Your task to perform on an android device: turn on location history Image 0: 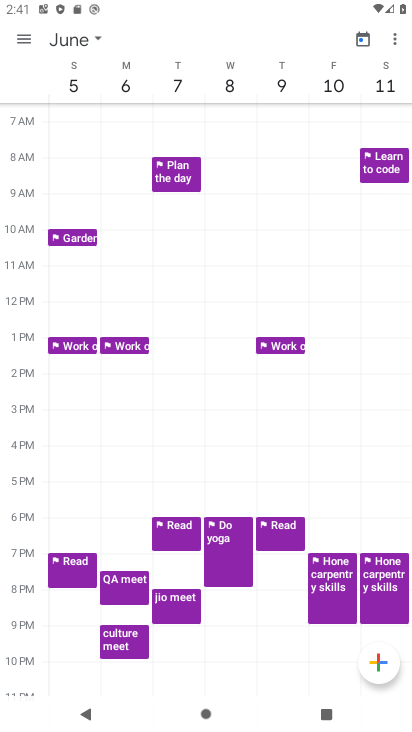
Step 0: press home button
Your task to perform on an android device: turn on location history Image 1: 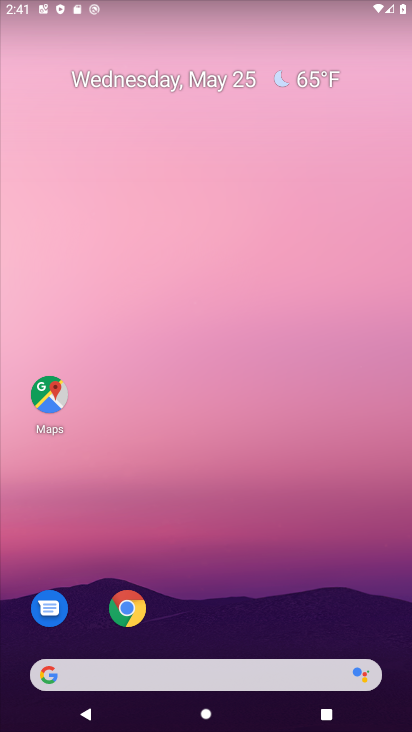
Step 1: click (54, 406)
Your task to perform on an android device: turn on location history Image 2: 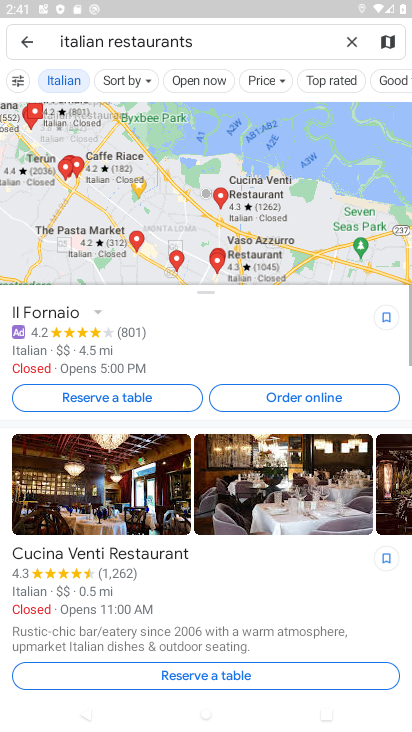
Step 2: click (348, 39)
Your task to perform on an android device: turn on location history Image 3: 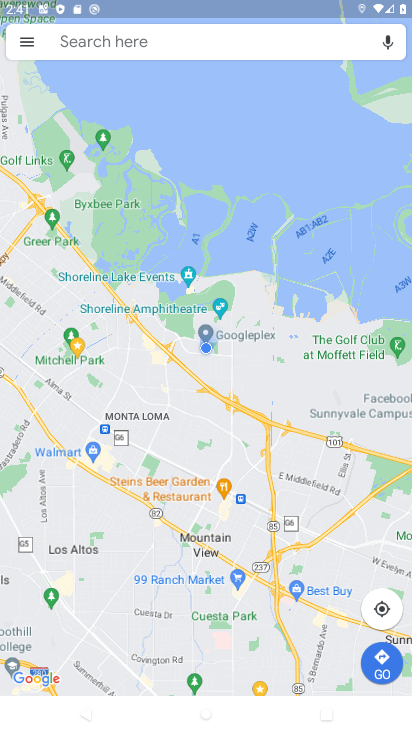
Step 3: click (24, 45)
Your task to perform on an android device: turn on location history Image 4: 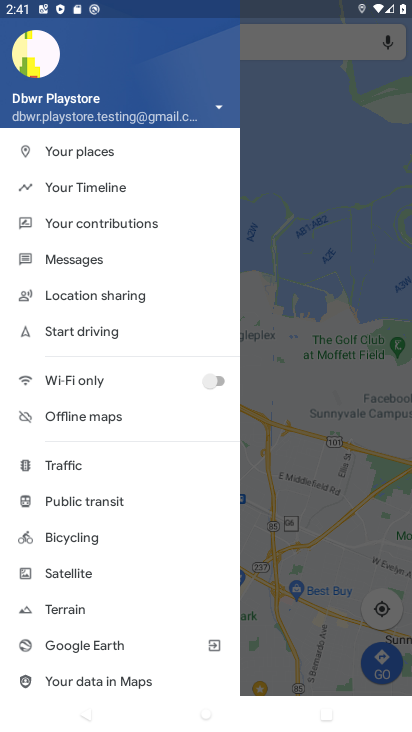
Step 4: click (76, 192)
Your task to perform on an android device: turn on location history Image 5: 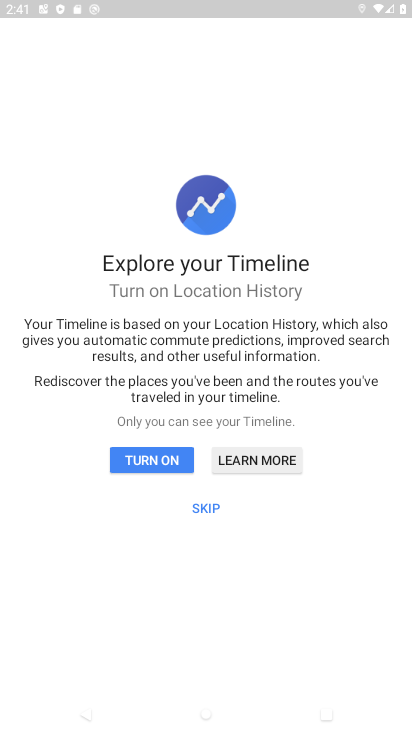
Step 5: click (209, 511)
Your task to perform on an android device: turn on location history Image 6: 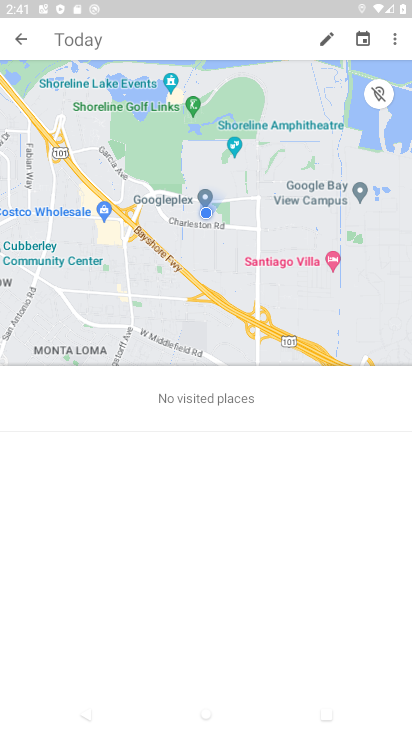
Step 6: click (396, 35)
Your task to perform on an android device: turn on location history Image 7: 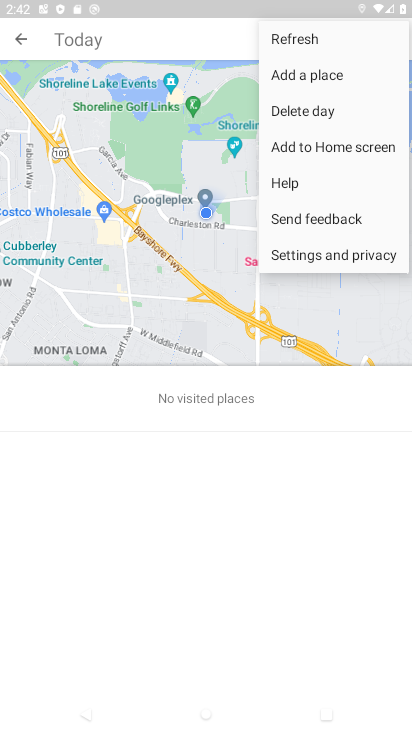
Step 7: click (323, 254)
Your task to perform on an android device: turn on location history Image 8: 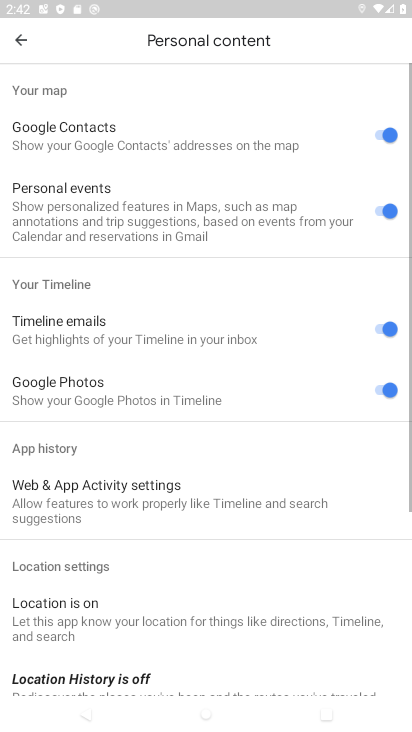
Step 8: drag from (110, 585) to (111, 318)
Your task to perform on an android device: turn on location history Image 9: 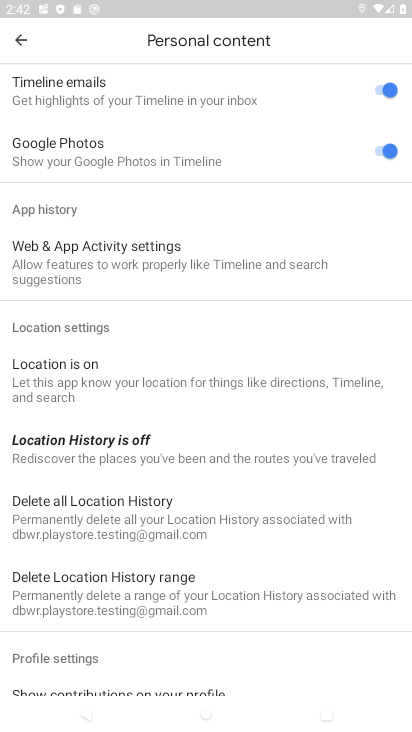
Step 9: click (85, 446)
Your task to perform on an android device: turn on location history Image 10: 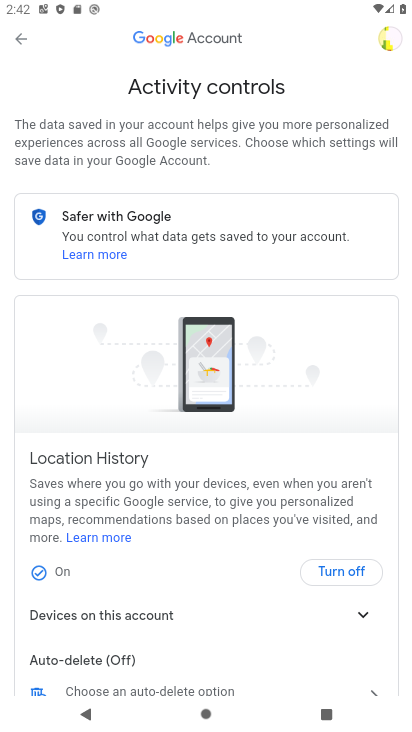
Step 10: task complete